Your task to perform on an android device: Open Google Chrome and open the bookmarks view Image 0: 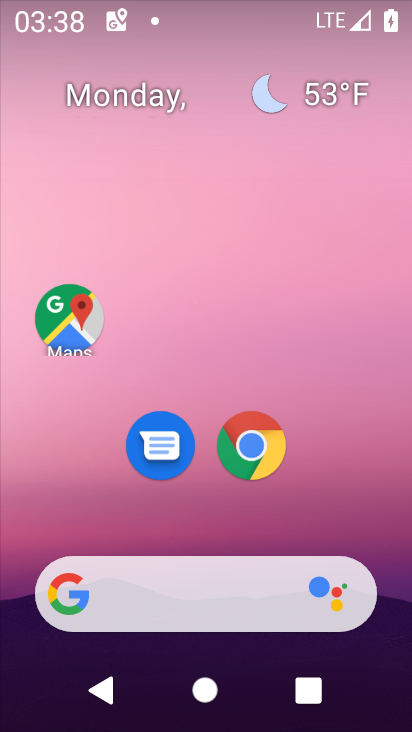
Step 0: click (250, 455)
Your task to perform on an android device: Open Google Chrome and open the bookmarks view Image 1: 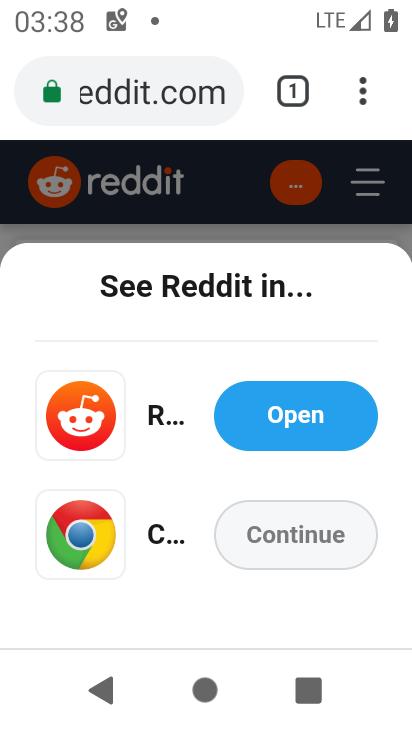
Step 1: click (367, 96)
Your task to perform on an android device: Open Google Chrome and open the bookmarks view Image 2: 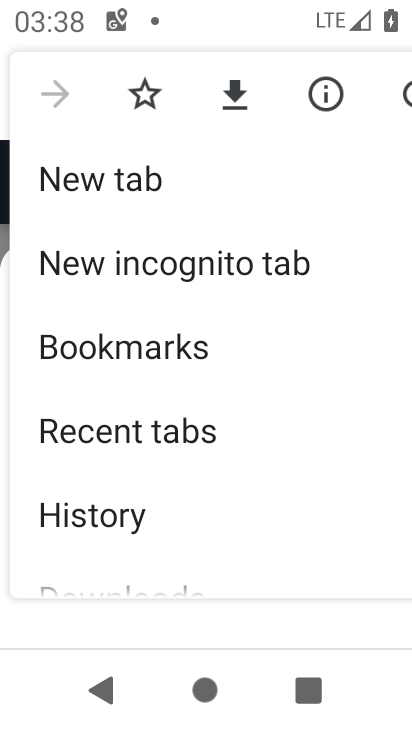
Step 2: click (134, 371)
Your task to perform on an android device: Open Google Chrome and open the bookmarks view Image 3: 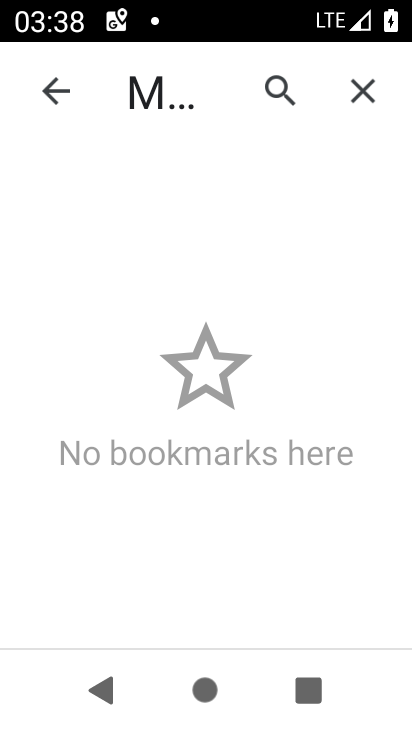
Step 3: task complete